Your task to perform on an android device: choose inbox layout in the gmail app Image 0: 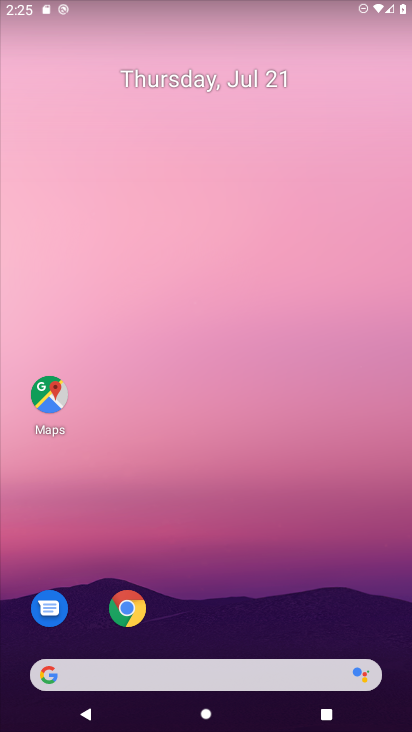
Step 0: drag from (268, 598) to (269, 141)
Your task to perform on an android device: choose inbox layout in the gmail app Image 1: 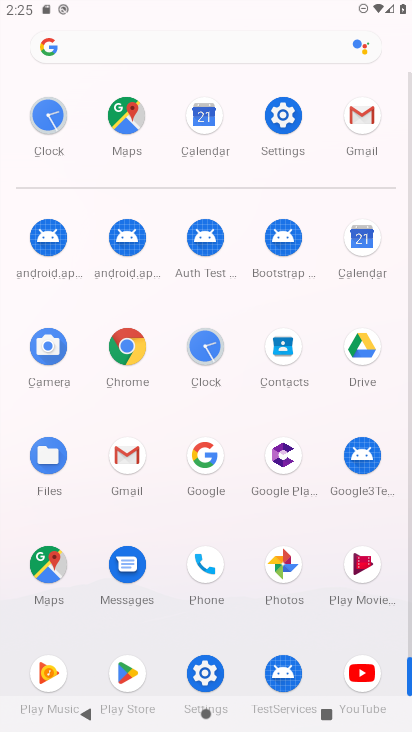
Step 1: click (357, 109)
Your task to perform on an android device: choose inbox layout in the gmail app Image 2: 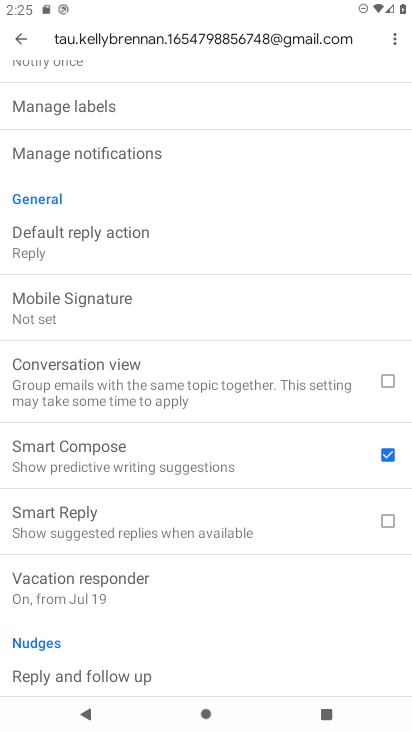
Step 2: drag from (120, 257) to (151, 611)
Your task to perform on an android device: choose inbox layout in the gmail app Image 3: 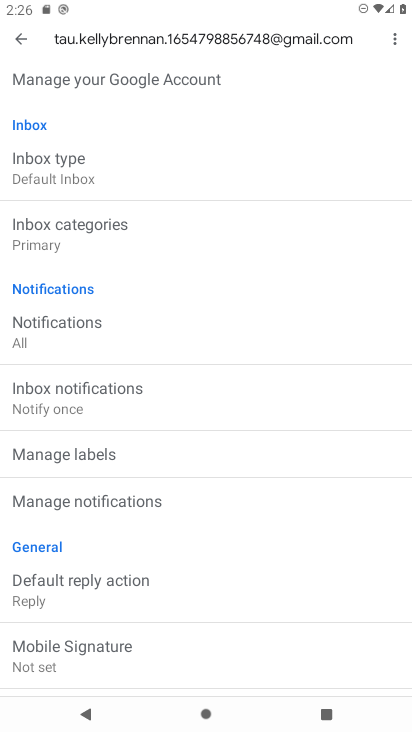
Step 3: click (80, 187)
Your task to perform on an android device: choose inbox layout in the gmail app Image 4: 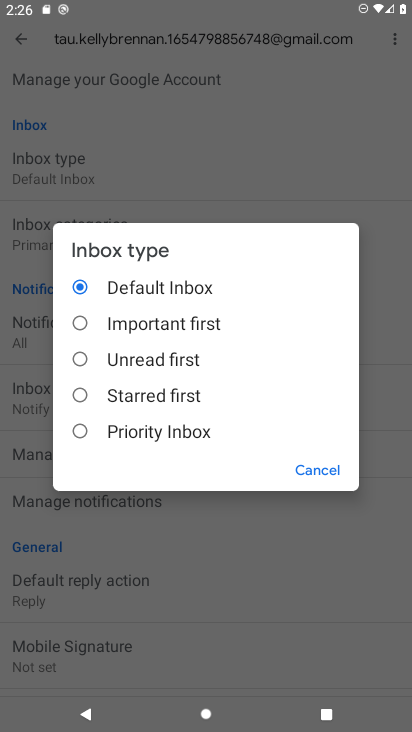
Step 4: click (148, 442)
Your task to perform on an android device: choose inbox layout in the gmail app Image 5: 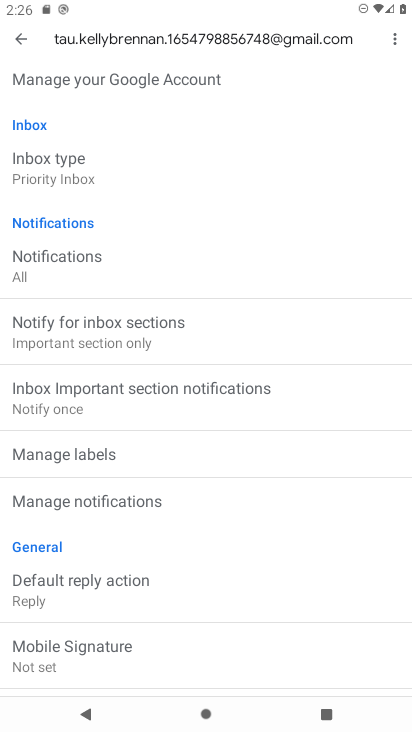
Step 5: task complete